Your task to perform on an android device: Go to Android settings Image 0: 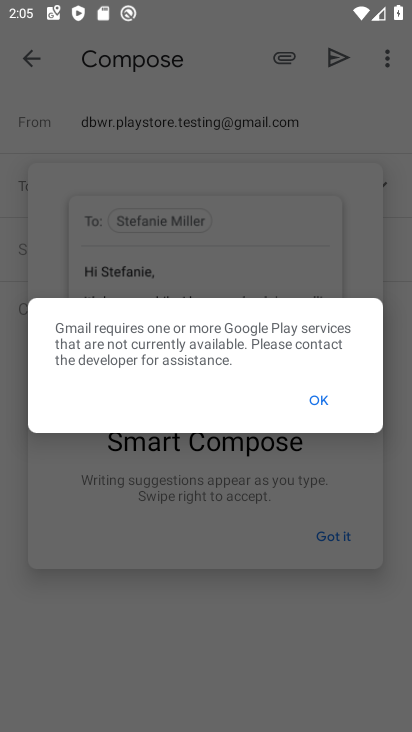
Step 0: press home button
Your task to perform on an android device: Go to Android settings Image 1: 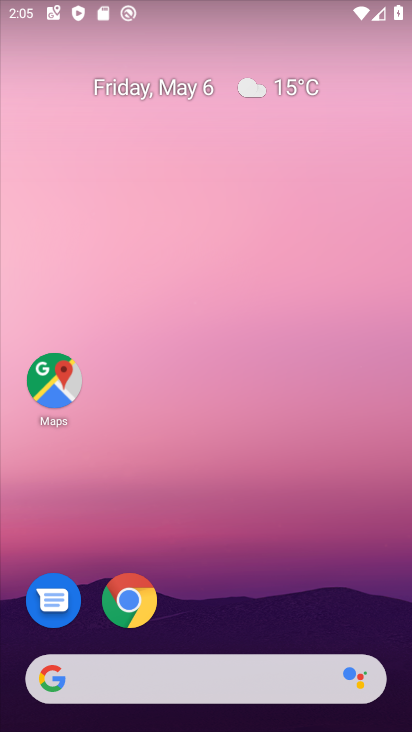
Step 1: drag from (334, 616) to (299, 39)
Your task to perform on an android device: Go to Android settings Image 2: 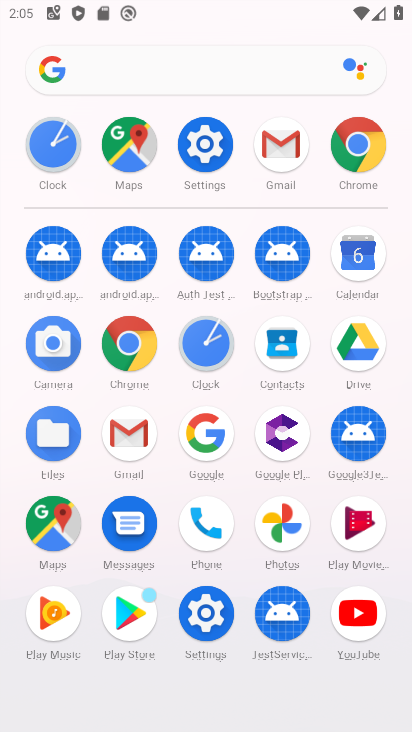
Step 2: click (201, 603)
Your task to perform on an android device: Go to Android settings Image 3: 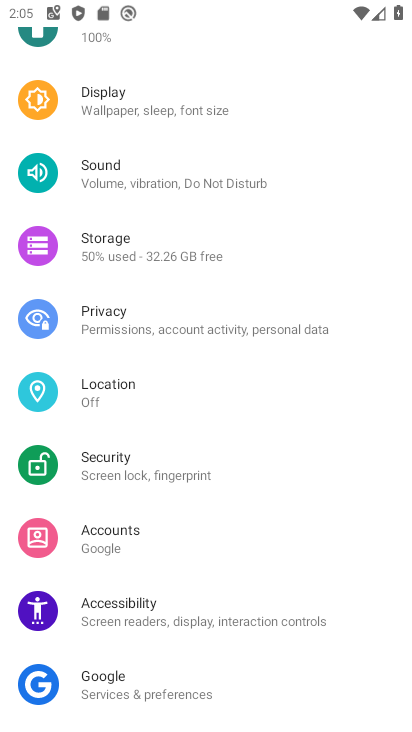
Step 3: drag from (98, 685) to (179, 180)
Your task to perform on an android device: Go to Android settings Image 4: 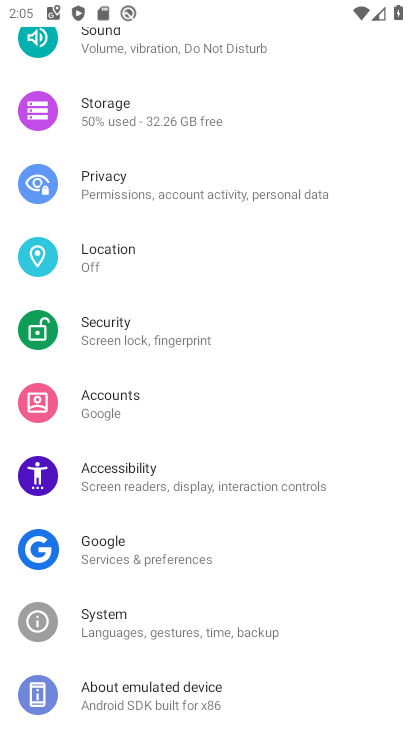
Step 4: click (124, 685)
Your task to perform on an android device: Go to Android settings Image 5: 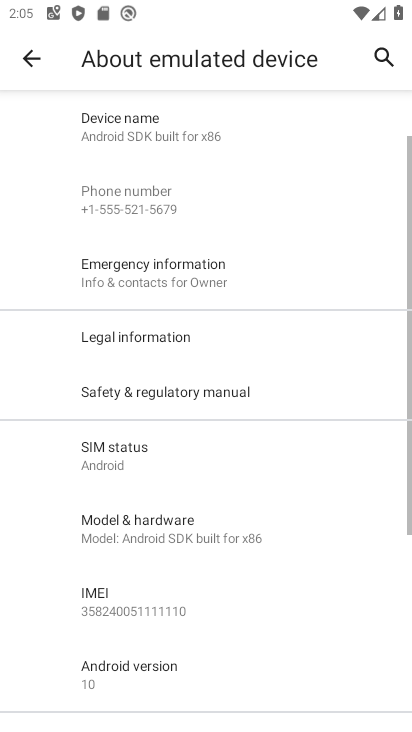
Step 5: click (156, 679)
Your task to perform on an android device: Go to Android settings Image 6: 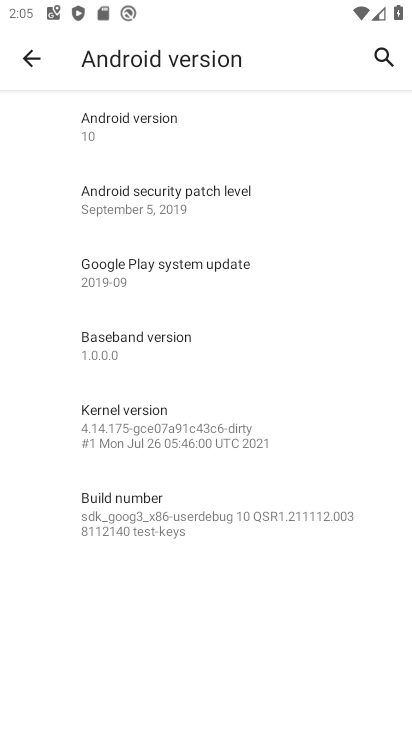
Step 6: task complete